Your task to perform on an android device: turn on translation in the chrome app Image 0: 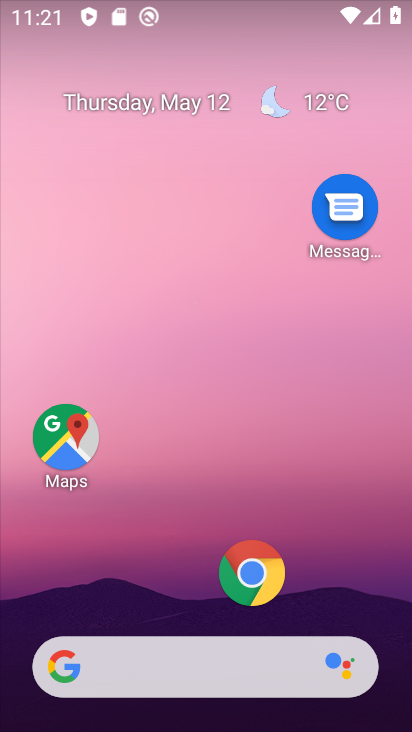
Step 0: drag from (394, 648) to (254, 11)
Your task to perform on an android device: turn on translation in the chrome app Image 1: 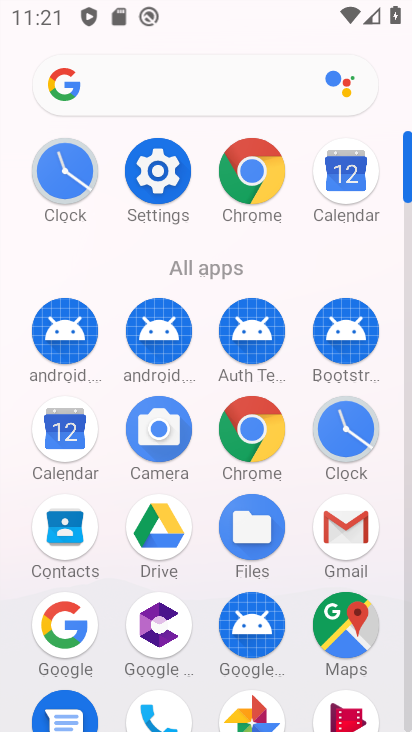
Step 1: click (270, 190)
Your task to perform on an android device: turn on translation in the chrome app Image 2: 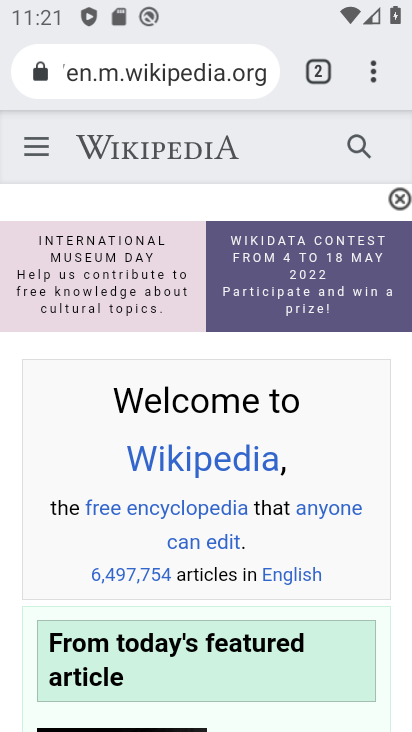
Step 2: press home button
Your task to perform on an android device: turn on translation in the chrome app Image 3: 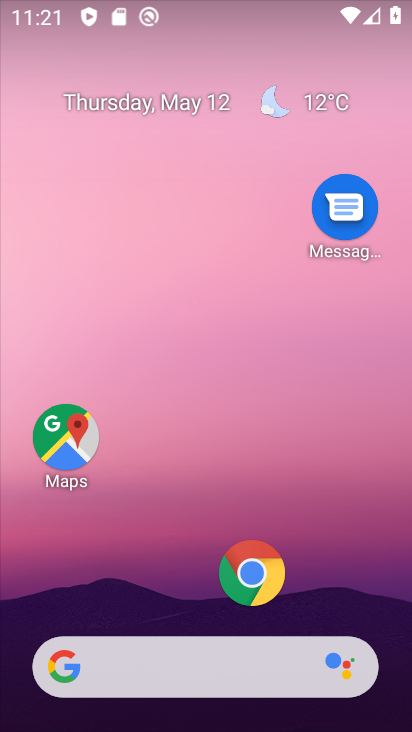
Step 3: click (245, 579)
Your task to perform on an android device: turn on translation in the chrome app Image 4: 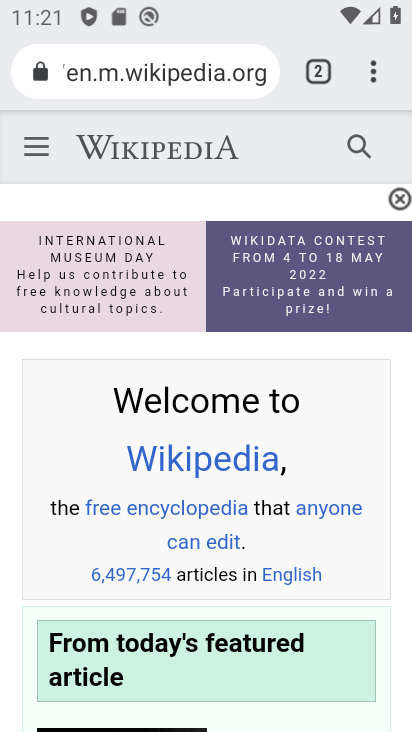
Step 4: drag from (374, 70) to (145, 572)
Your task to perform on an android device: turn on translation in the chrome app Image 5: 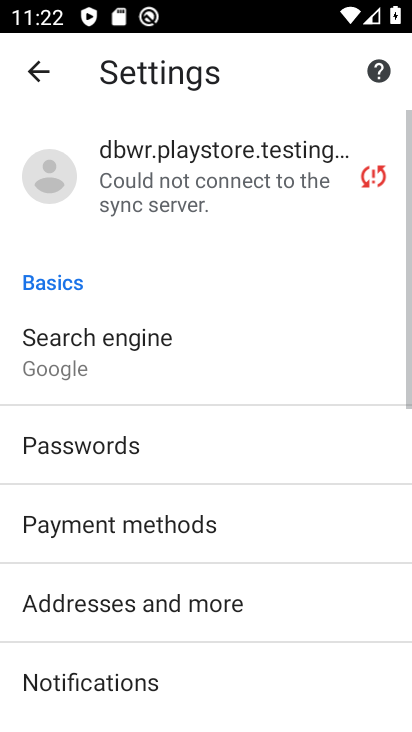
Step 5: drag from (257, 616) to (236, 159)
Your task to perform on an android device: turn on translation in the chrome app Image 6: 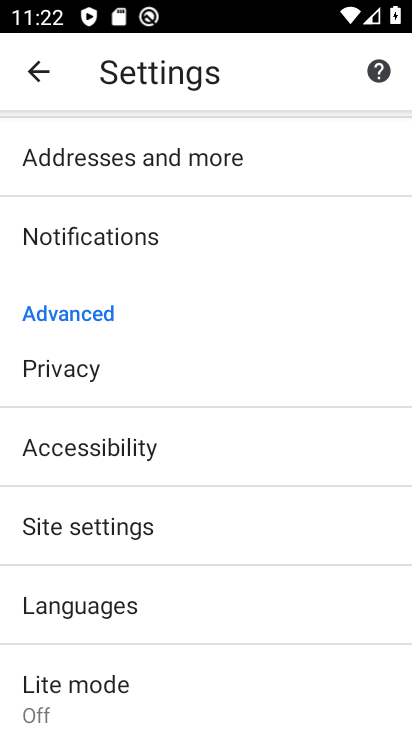
Step 6: click (116, 606)
Your task to perform on an android device: turn on translation in the chrome app Image 7: 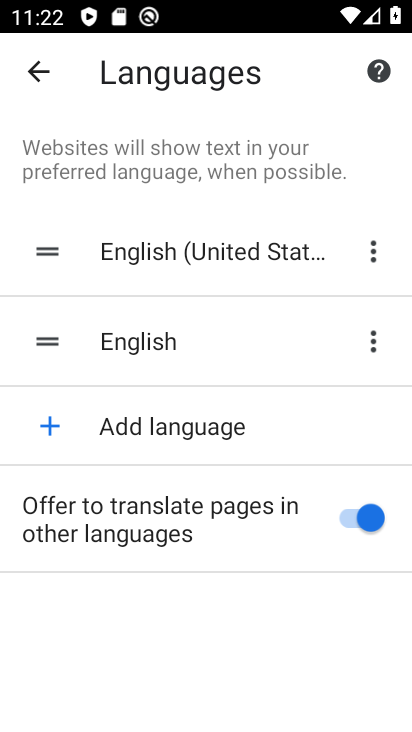
Step 7: task complete